Your task to perform on an android device: Open CNN.com Image 0: 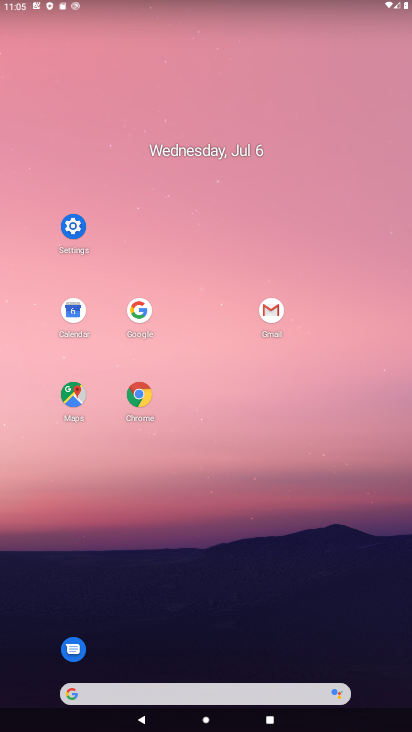
Step 0: click (136, 303)
Your task to perform on an android device: Open CNN.com Image 1: 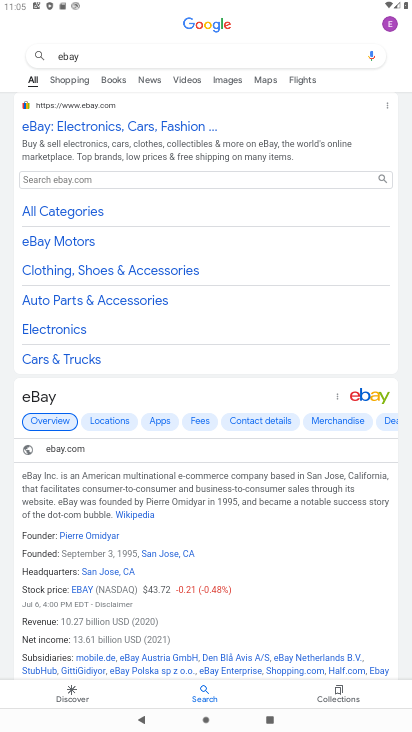
Step 1: click (92, 56)
Your task to perform on an android device: Open CNN.com Image 2: 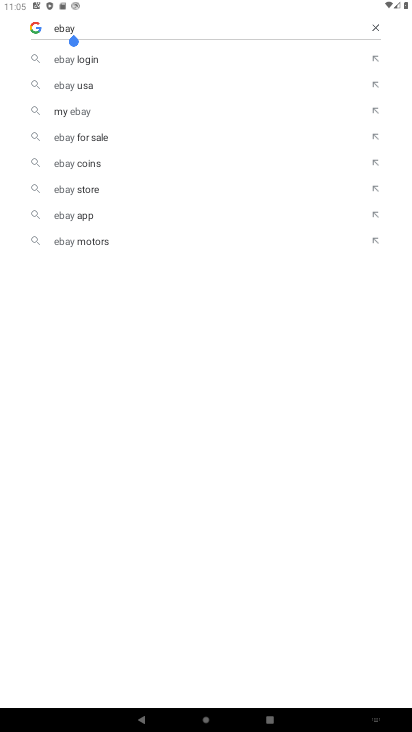
Step 2: click (374, 24)
Your task to perform on an android device: Open CNN.com Image 3: 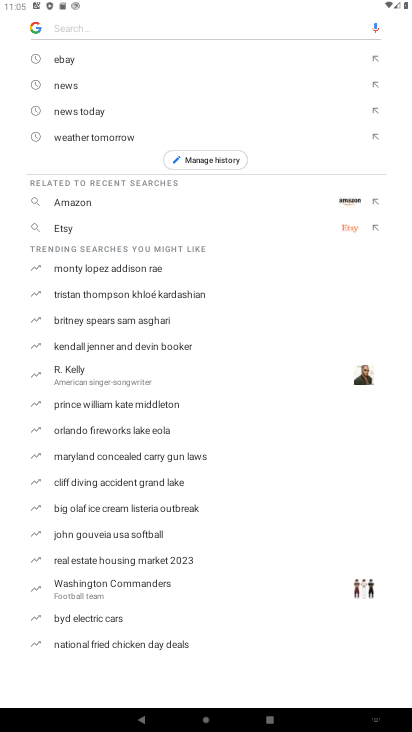
Step 3: type "cnn"
Your task to perform on an android device: Open CNN.com Image 4: 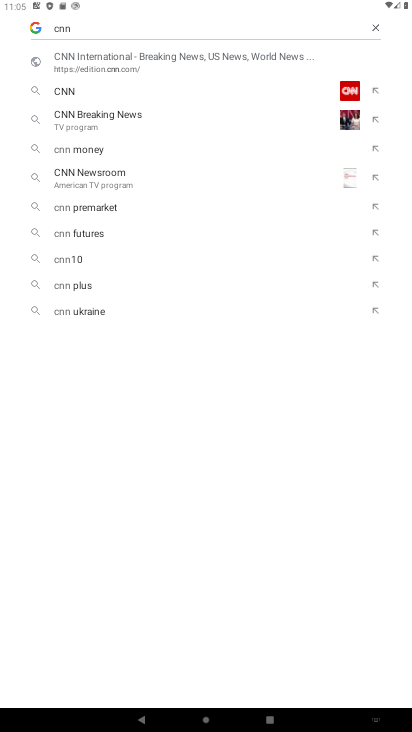
Step 4: click (100, 90)
Your task to perform on an android device: Open CNN.com Image 5: 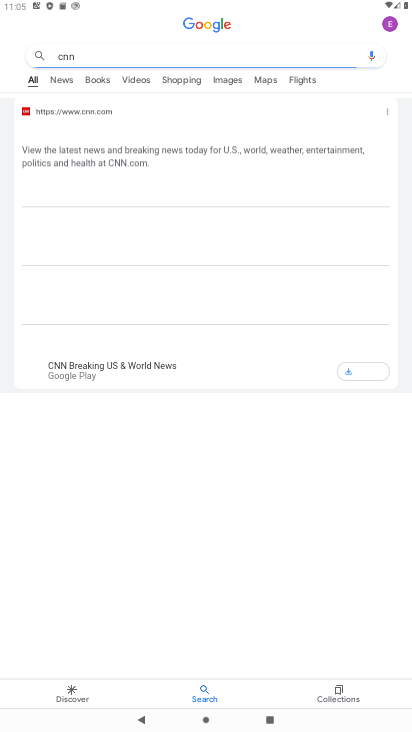
Step 5: click (92, 107)
Your task to perform on an android device: Open CNN.com Image 6: 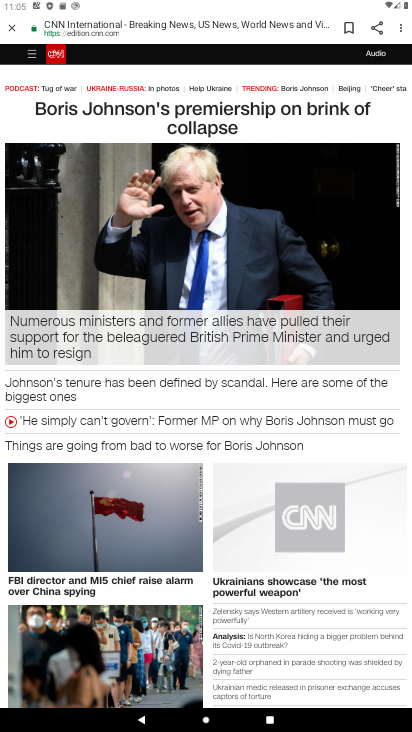
Step 6: task complete